Your task to perform on an android device: set the stopwatch Image 0: 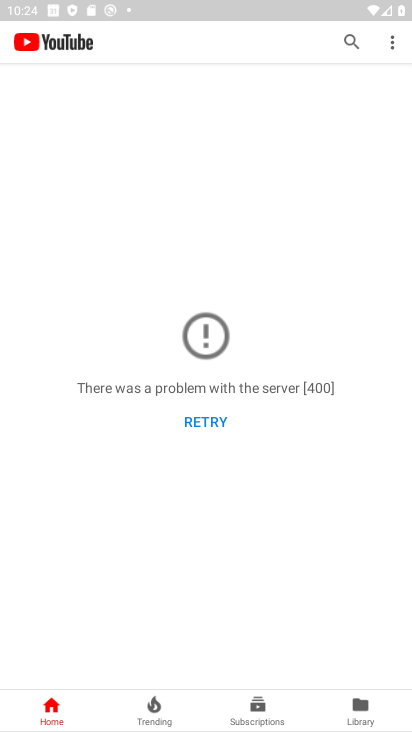
Step 0: press home button
Your task to perform on an android device: set the stopwatch Image 1: 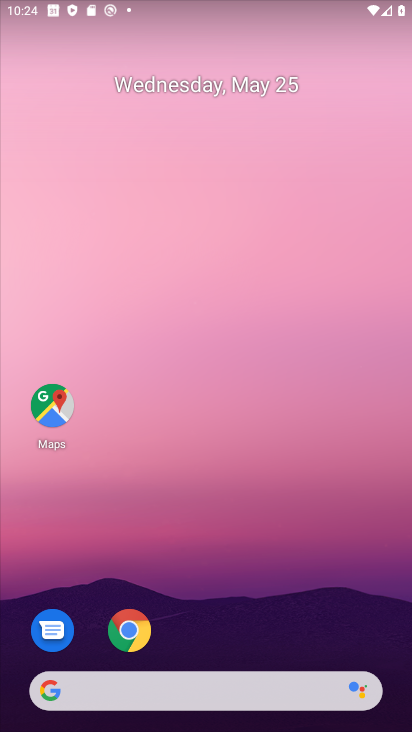
Step 1: drag from (392, 651) to (390, 260)
Your task to perform on an android device: set the stopwatch Image 2: 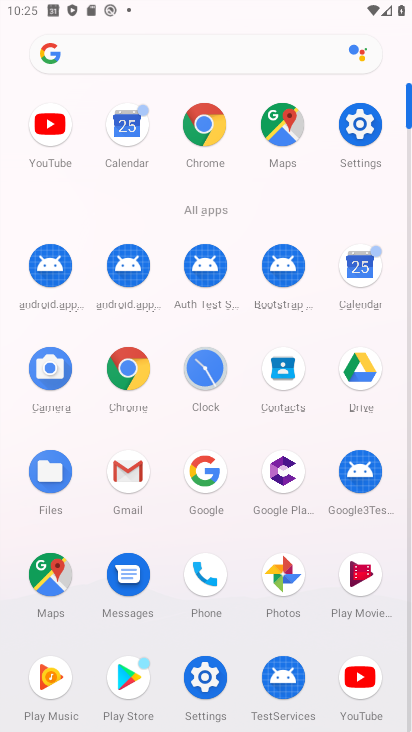
Step 2: click (359, 131)
Your task to perform on an android device: set the stopwatch Image 3: 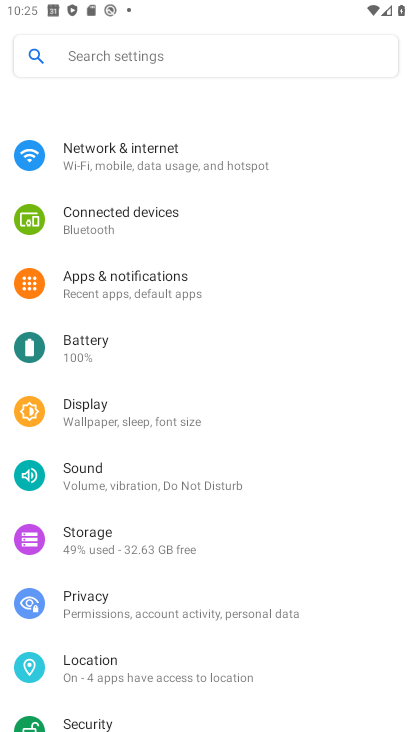
Step 3: click (189, 360)
Your task to perform on an android device: set the stopwatch Image 4: 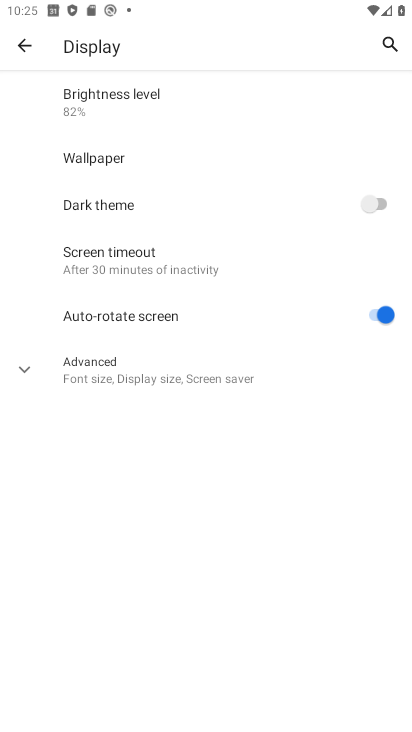
Step 4: press back button
Your task to perform on an android device: set the stopwatch Image 5: 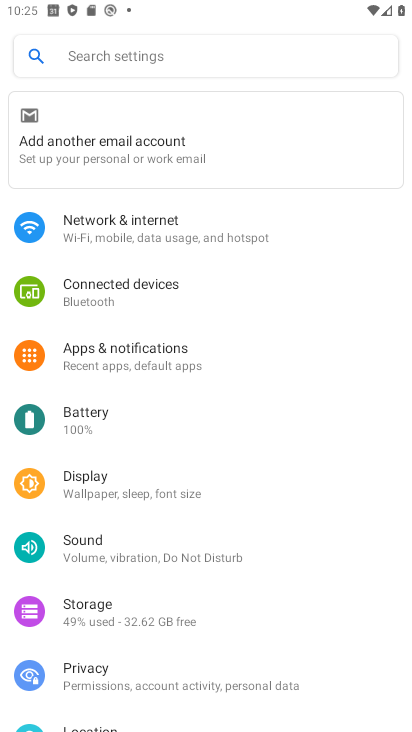
Step 5: press back button
Your task to perform on an android device: set the stopwatch Image 6: 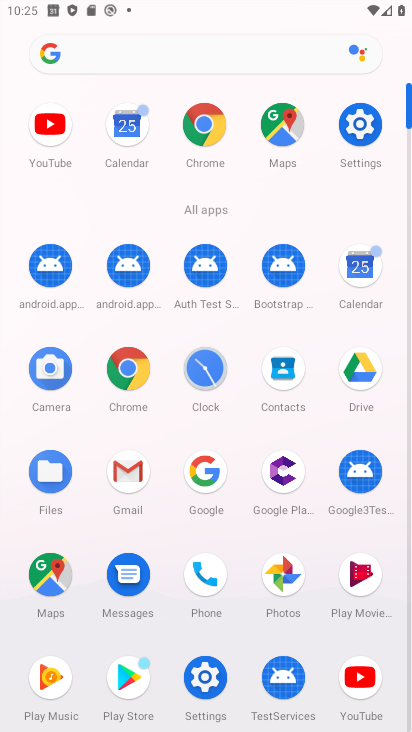
Step 6: click (192, 362)
Your task to perform on an android device: set the stopwatch Image 7: 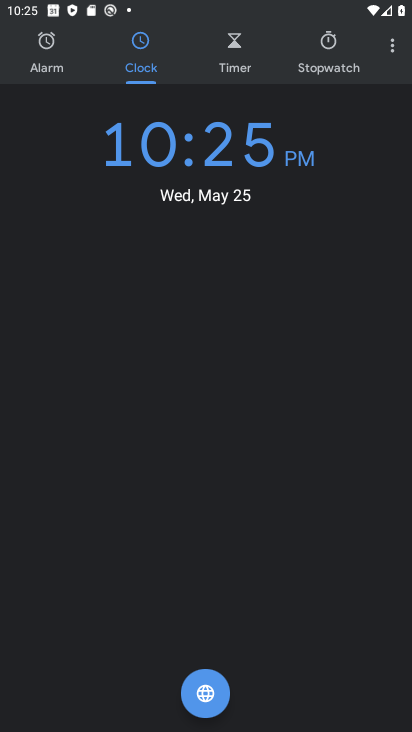
Step 7: click (333, 45)
Your task to perform on an android device: set the stopwatch Image 8: 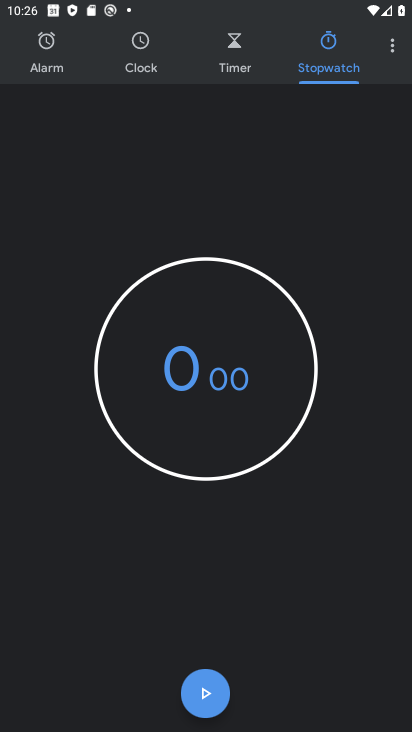
Step 8: click (199, 687)
Your task to perform on an android device: set the stopwatch Image 9: 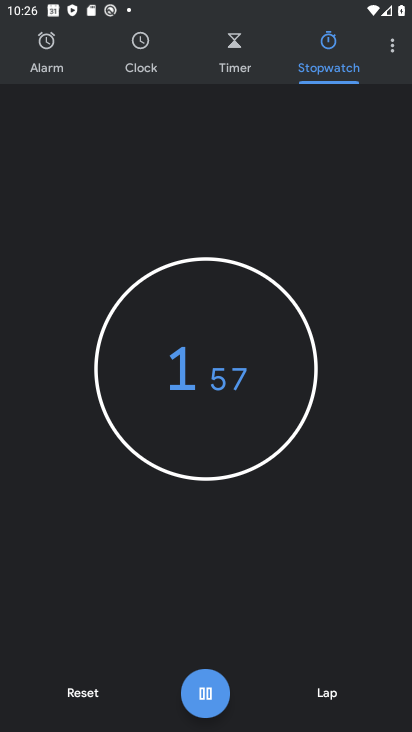
Step 9: task complete